Your task to perform on an android device: Open Chrome and go to settings Image 0: 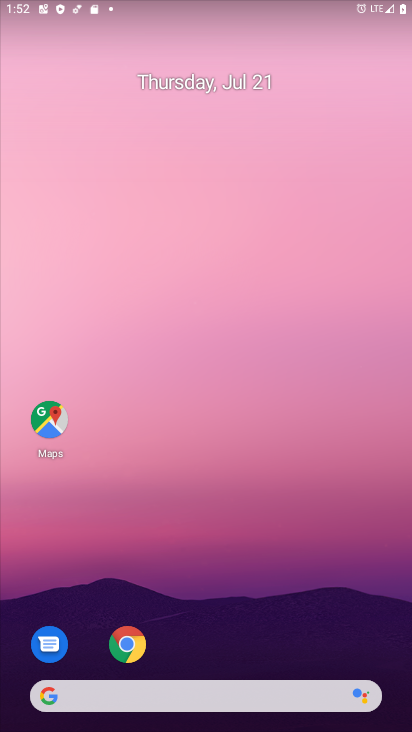
Step 0: click (128, 643)
Your task to perform on an android device: Open Chrome and go to settings Image 1: 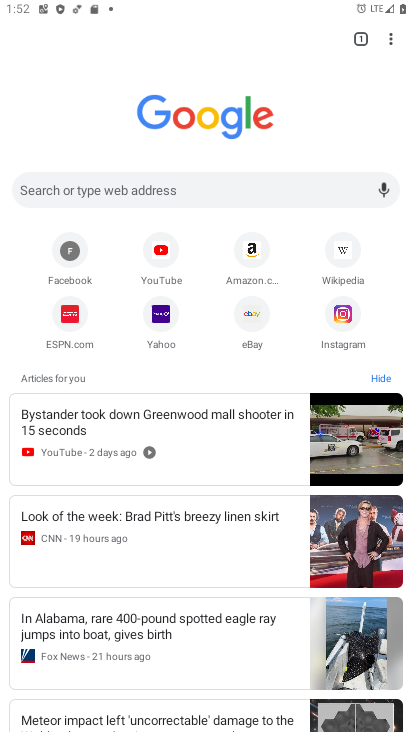
Step 1: click (393, 37)
Your task to perform on an android device: Open Chrome and go to settings Image 2: 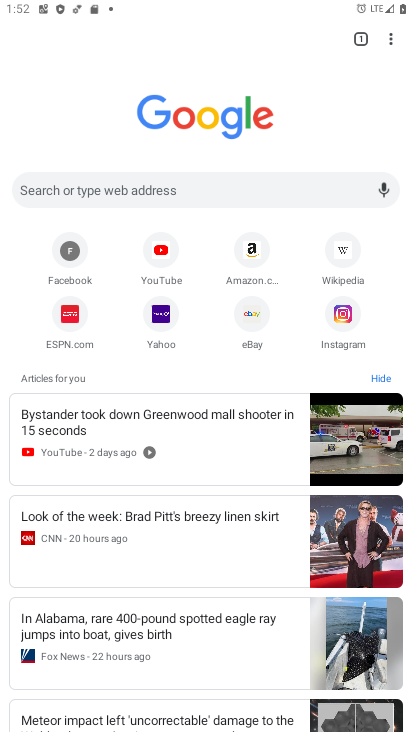
Step 2: click (391, 47)
Your task to perform on an android device: Open Chrome and go to settings Image 3: 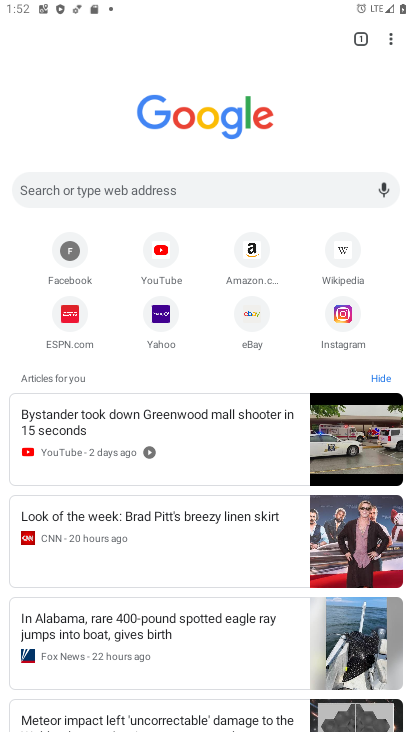
Step 3: click (393, 26)
Your task to perform on an android device: Open Chrome and go to settings Image 4: 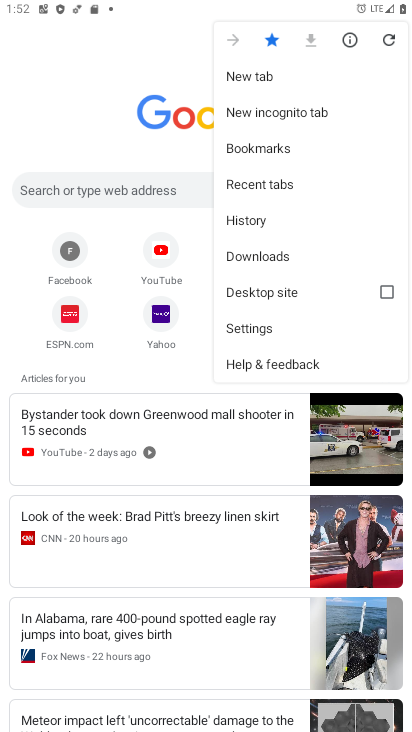
Step 4: click (266, 335)
Your task to perform on an android device: Open Chrome and go to settings Image 5: 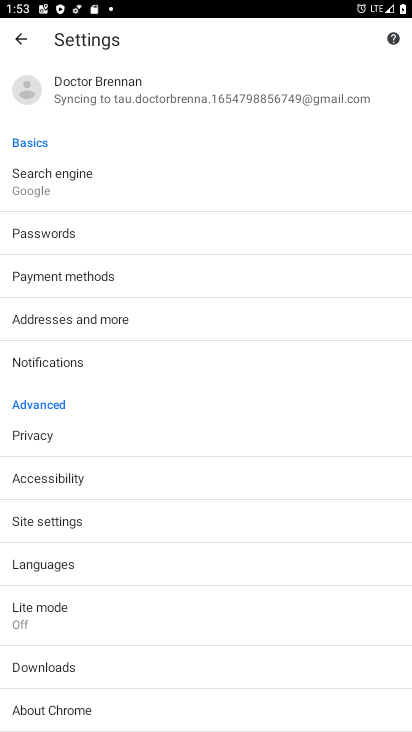
Step 5: task complete